Your task to perform on an android device: Open settings Image 0: 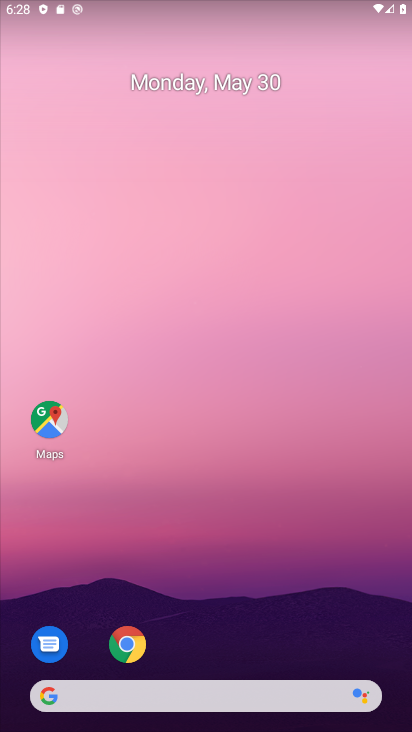
Step 0: drag from (247, 637) to (336, 34)
Your task to perform on an android device: Open settings Image 1: 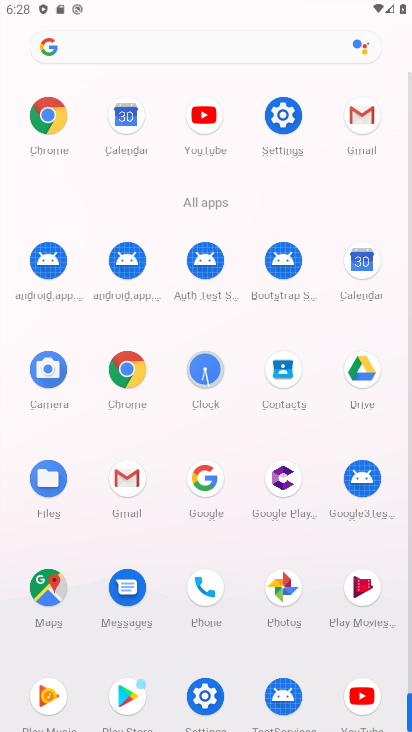
Step 1: click (275, 145)
Your task to perform on an android device: Open settings Image 2: 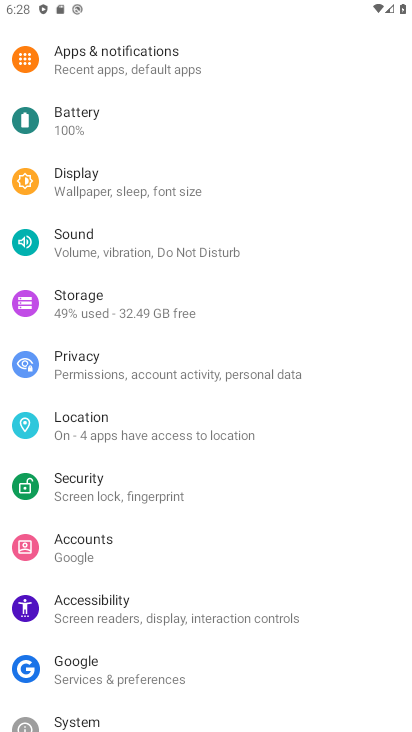
Step 2: task complete